Your task to perform on an android device: Open the phone app and click the voicemail tab. Image 0: 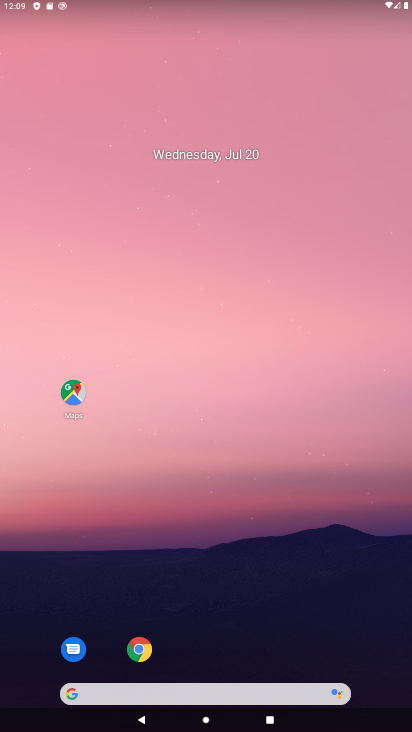
Step 0: drag from (217, 431) to (269, 119)
Your task to perform on an android device: Open the phone app and click the voicemail tab. Image 1: 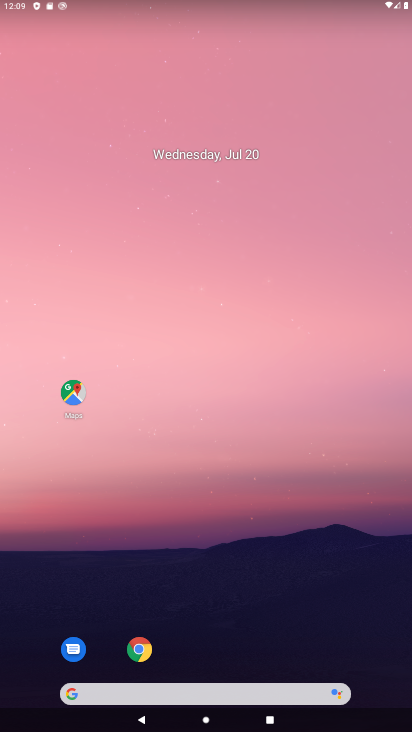
Step 1: drag from (224, 722) to (218, 20)
Your task to perform on an android device: Open the phone app and click the voicemail tab. Image 2: 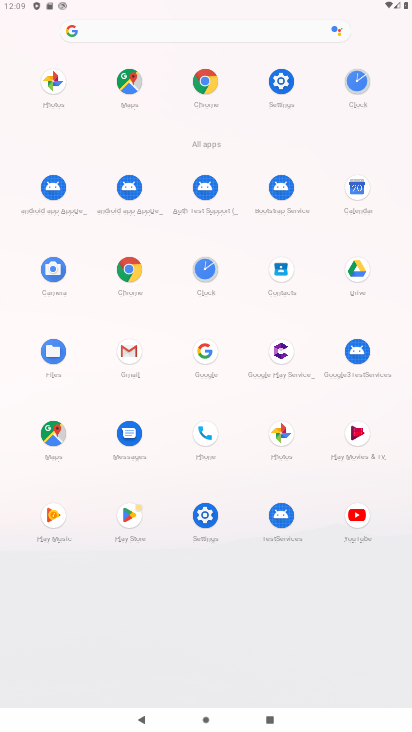
Step 2: click (201, 433)
Your task to perform on an android device: Open the phone app and click the voicemail tab. Image 3: 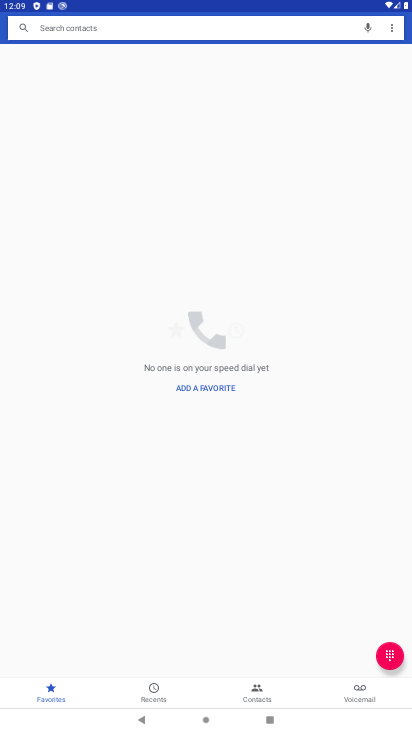
Step 3: click (362, 692)
Your task to perform on an android device: Open the phone app and click the voicemail tab. Image 4: 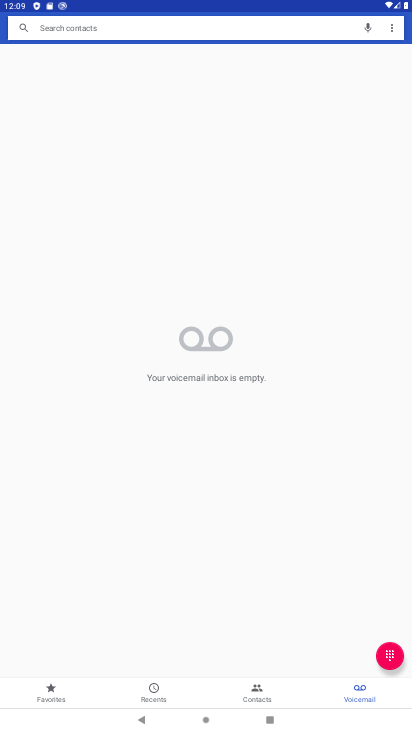
Step 4: task complete